Your task to perform on an android device: create a new album in the google photos Image 0: 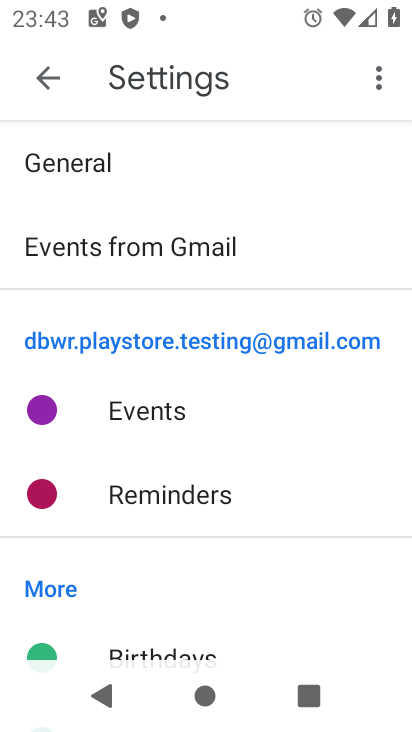
Step 0: press home button
Your task to perform on an android device: create a new album in the google photos Image 1: 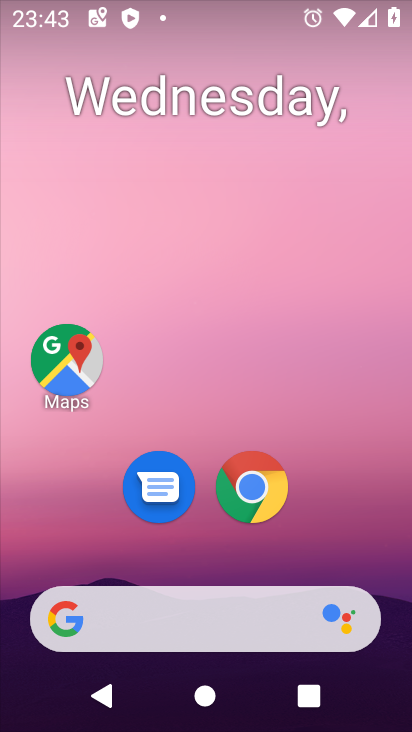
Step 1: drag from (349, 567) to (352, 1)
Your task to perform on an android device: create a new album in the google photos Image 2: 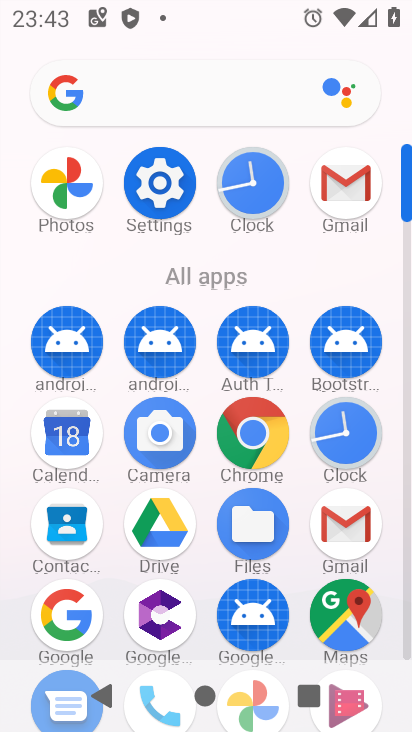
Step 2: click (60, 180)
Your task to perform on an android device: create a new album in the google photos Image 3: 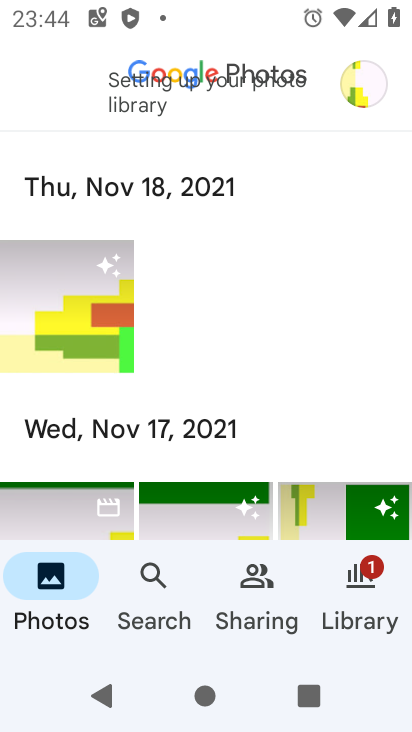
Step 3: drag from (218, 434) to (206, 238)
Your task to perform on an android device: create a new album in the google photos Image 4: 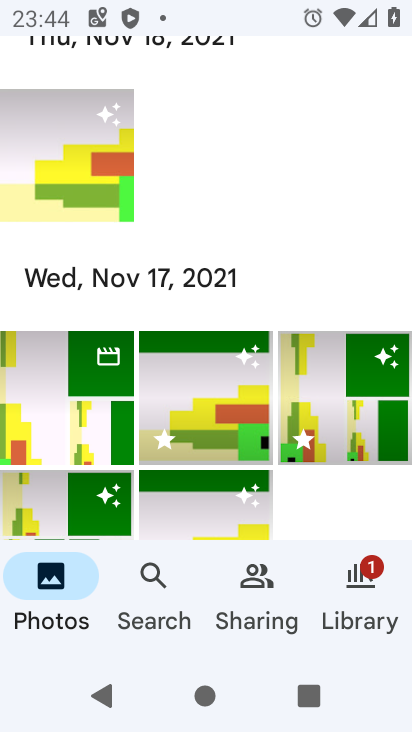
Step 4: click (187, 401)
Your task to perform on an android device: create a new album in the google photos Image 5: 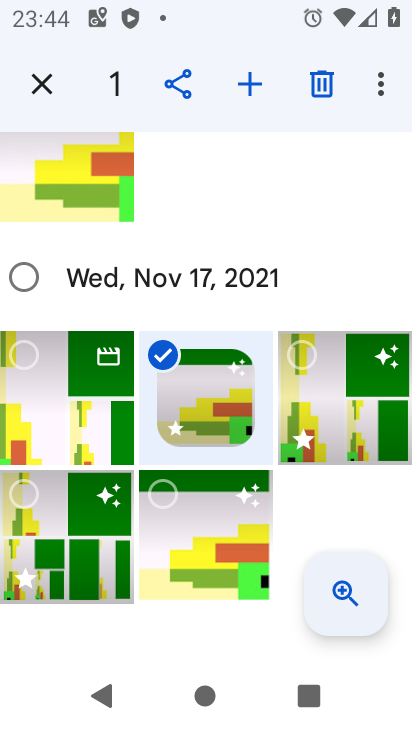
Step 5: click (300, 400)
Your task to perform on an android device: create a new album in the google photos Image 6: 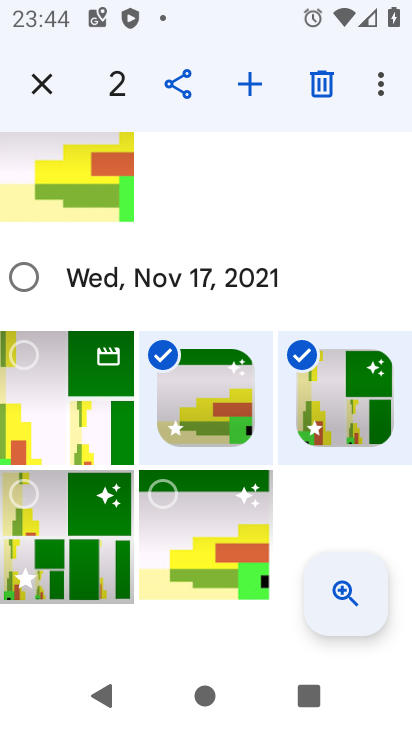
Step 6: click (242, 82)
Your task to perform on an android device: create a new album in the google photos Image 7: 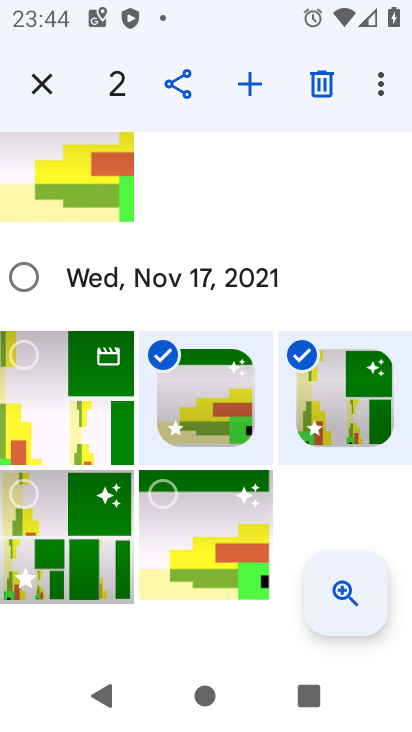
Step 7: click (250, 86)
Your task to perform on an android device: create a new album in the google photos Image 8: 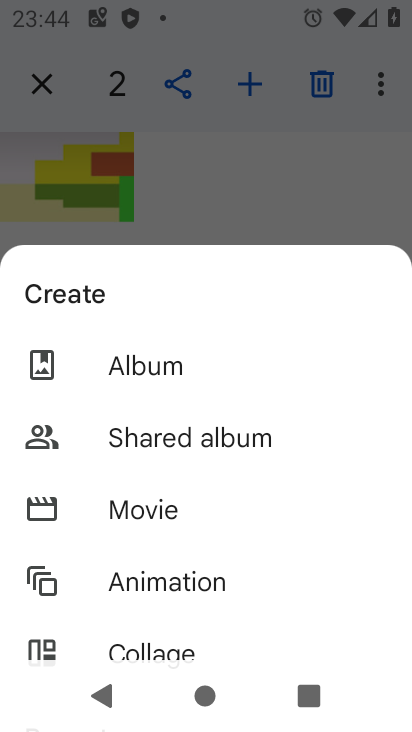
Step 8: click (100, 356)
Your task to perform on an android device: create a new album in the google photos Image 9: 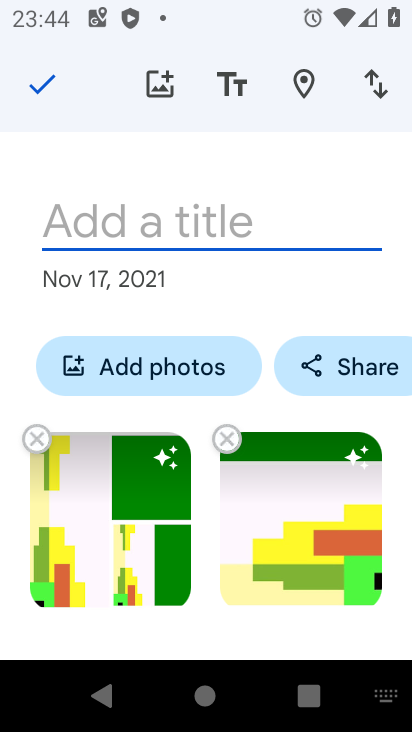
Step 9: click (134, 216)
Your task to perform on an android device: create a new album in the google photos Image 10: 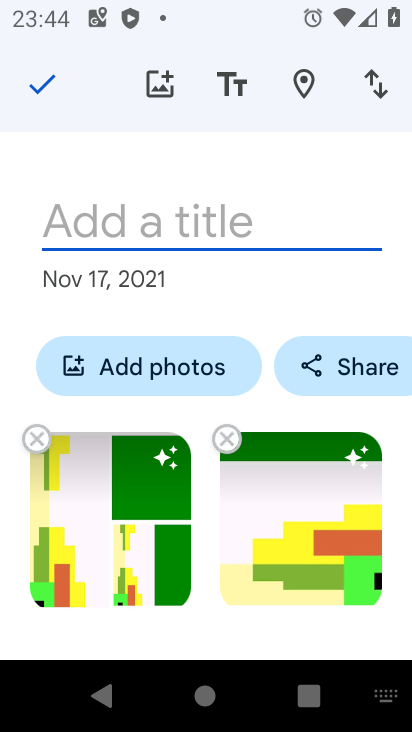
Step 10: type "new 2"
Your task to perform on an android device: create a new album in the google photos Image 11: 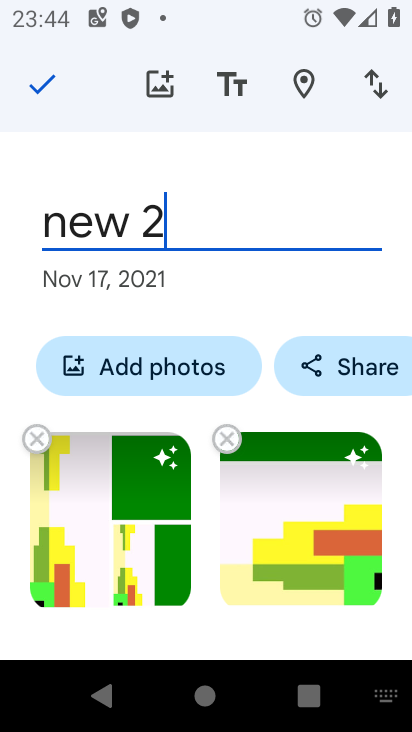
Step 11: click (36, 91)
Your task to perform on an android device: create a new album in the google photos Image 12: 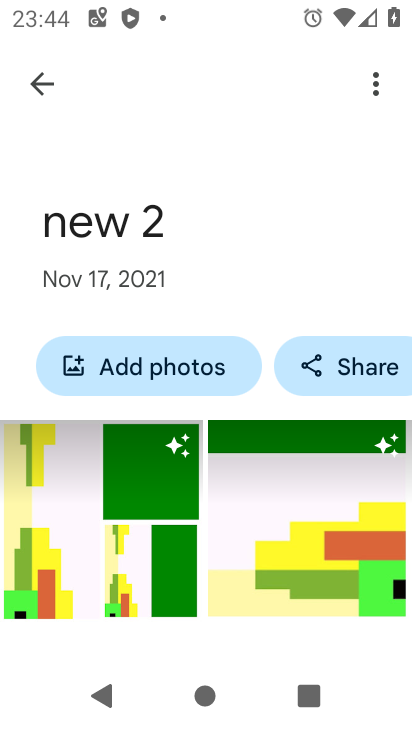
Step 12: task complete